Your task to perform on an android device: Go to wifi settings Image 0: 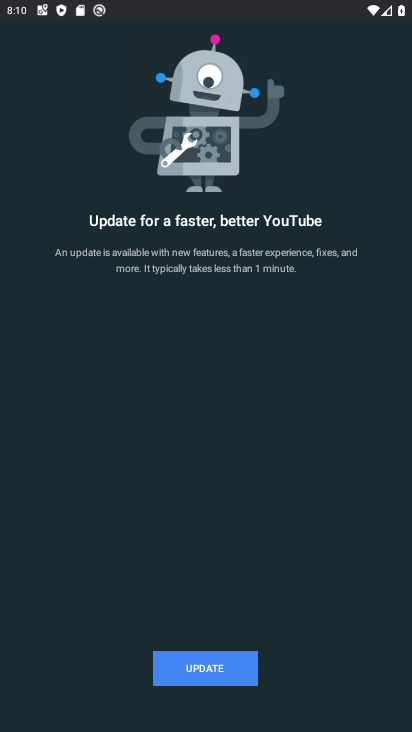
Step 0: press home button
Your task to perform on an android device: Go to wifi settings Image 1: 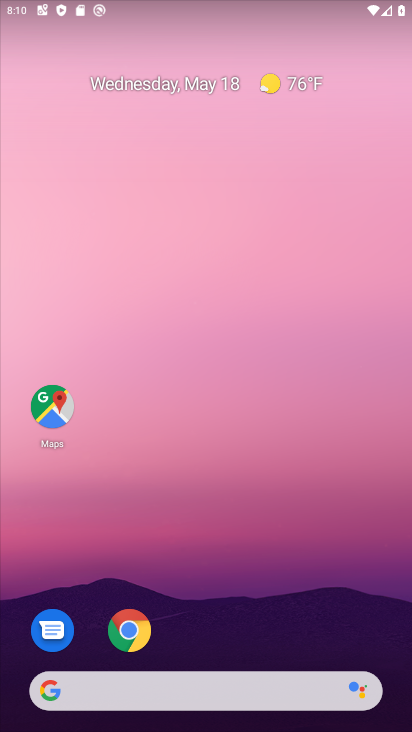
Step 1: drag from (189, 713) to (270, 94)
Your task to perform on an android device: Go to wifi settings Image 2: 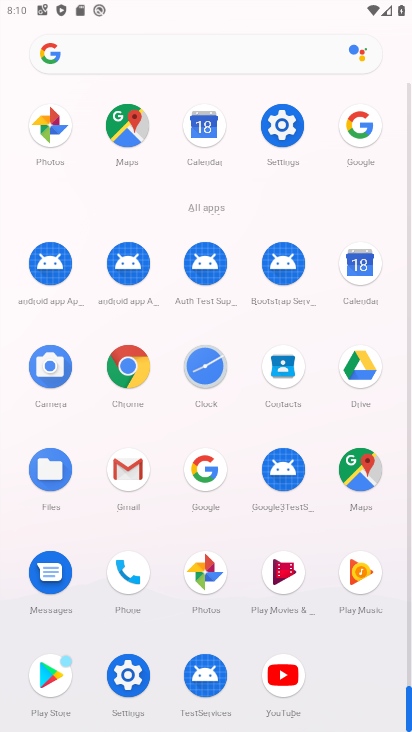
Step 2: click (276, 125)
Your task to perform on an android device: Go to wifi settings Image 3: 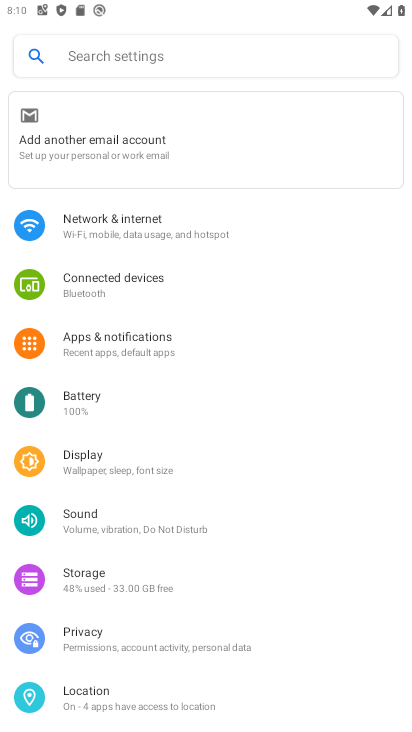
Step 3: click (175, 233)
Your task to perform on an android device: Go to wifi settings Image 4: 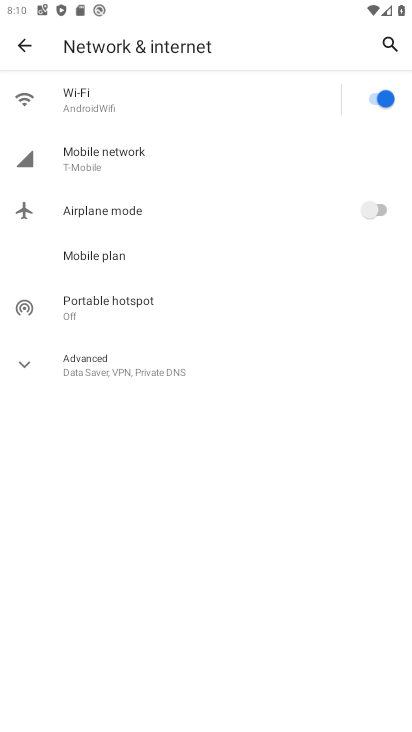
Step 4: click (182, 88)
Your task to perform on an android device: Go to wifi settings Image 5: 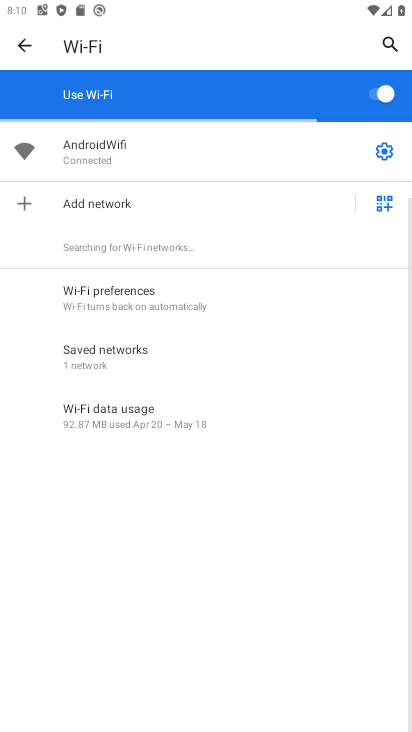
Step 5: click (389, 153)
Your task to perform on an android device: Go to wifi settings Image 6: 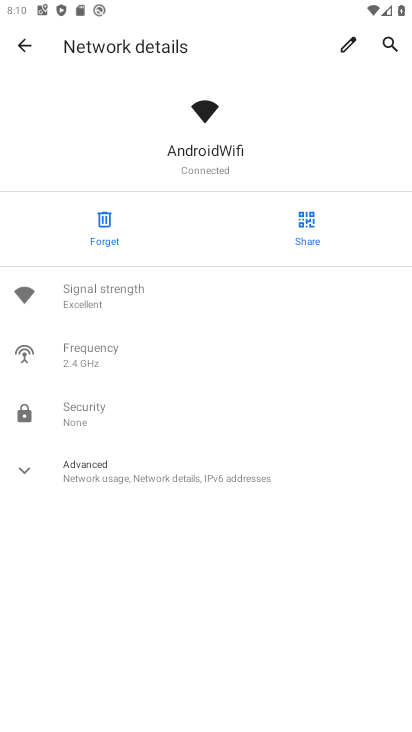
Step 6: task complete